Your task to perform on an android device: toggle priority inbox in the gmail app Image 0: 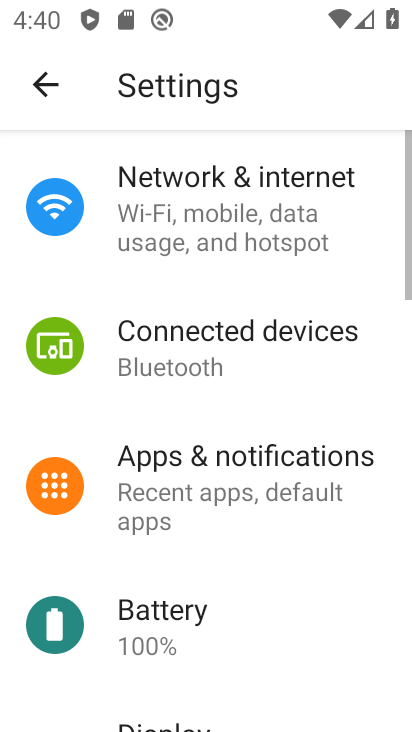
Step 0: press back button
Your task to perform on an android device: toggle priority inbox in the gmail app Image 1: 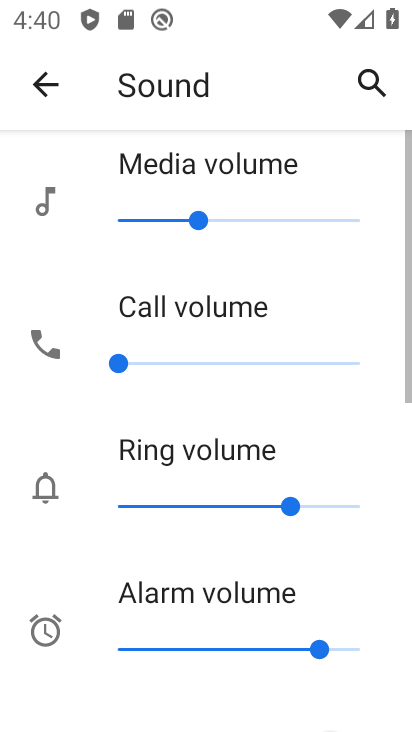
Step 1: press back button
Your task to perform on an android device: toggle priority inbox in the gmail app Image 2: 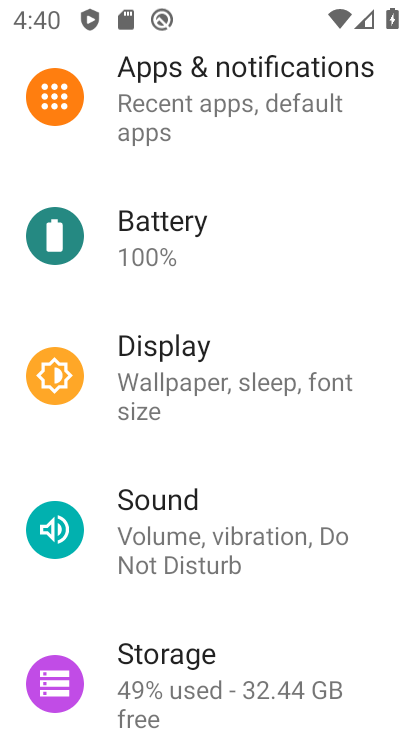
Step 2: press back button
Your task to perform on an android device: toggle priority inbox in the gmail app Image 3: 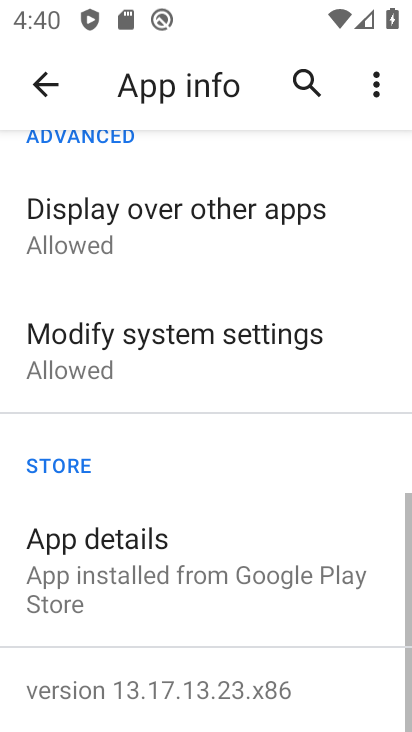
Step 3: press back button
Your task to perform on an android device: toggle priority inbox in the gmail app Image 4: 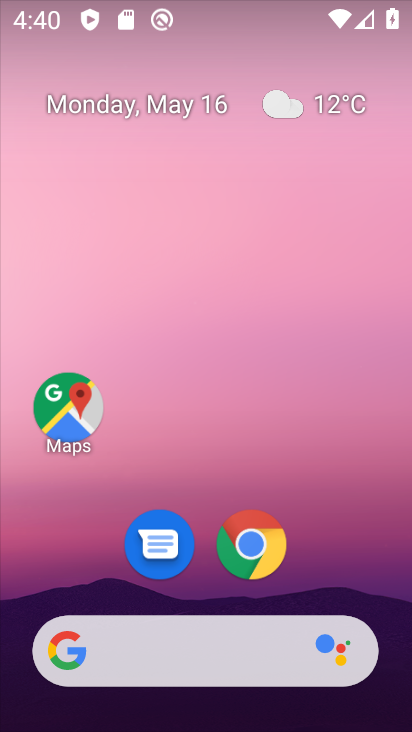
Step 4: drag from (322, 565) to (242, 1)
Your task to perform on an android device: toggle priority inbox in the gmail app Image 5: 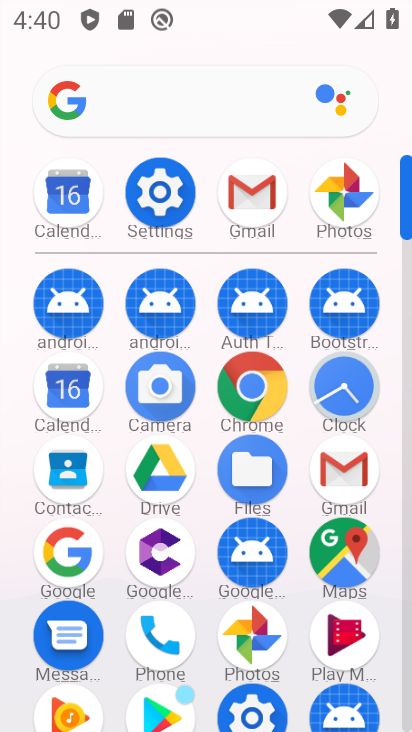
Step 5: click (250, 189)
Your task to perform on an android device: toggle priority inbox in the gmail app Image 6: 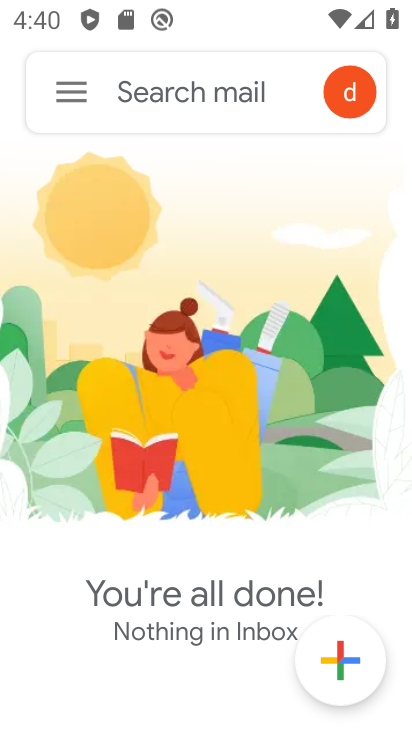
Step 6: click (68, 95)
Your task to perform on an android device: toggle priority inbox in the gmail app Image 7: 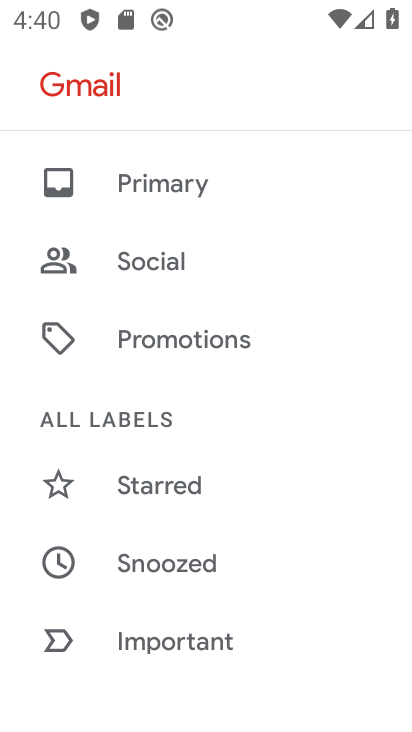
Step 7: drag from (168, 377) to (206, 305)
Your task to perform on an android device: toggle priority inbox in the gmail app Image 8: 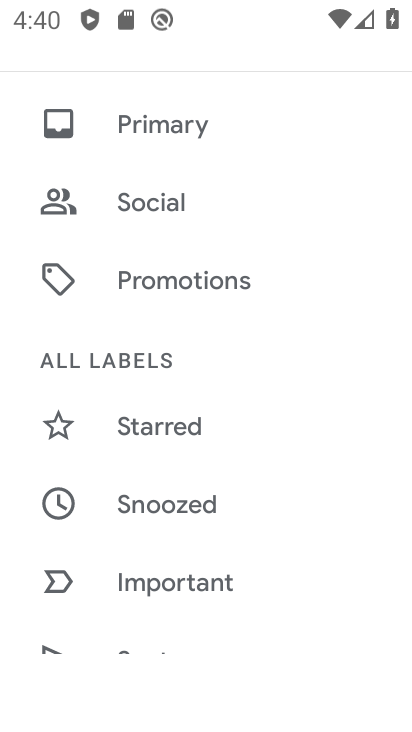
Step 8: drag from (157, 393) to (217, 313)
Your task to perform on an android device: toggle priority inbox in the gmail app Image 9: 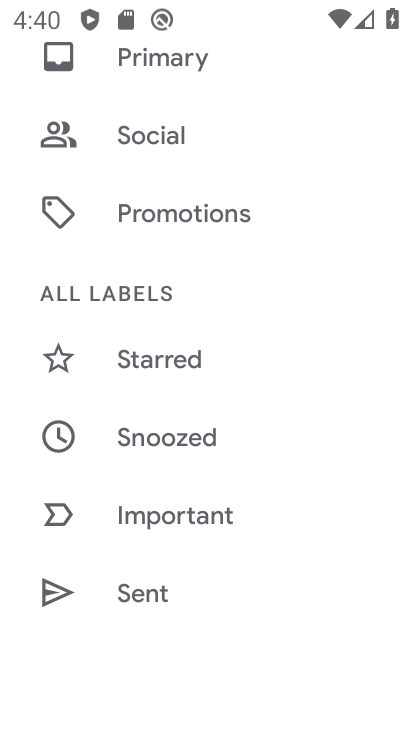
Step 9: drag from (158, 393) to (215, 324)
Your task to perform on an android device: toggle priority inbox in the gmail app Image 10: 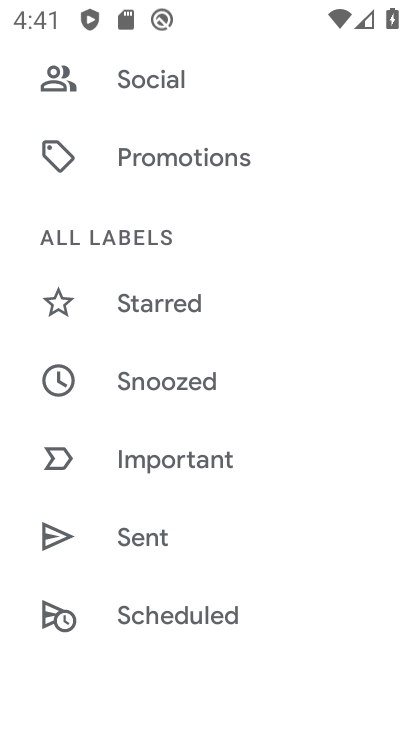
Step 10: drag from (139, 418) to (181, 338)
Your task to perform on an android device: toggle priority inbox in the gmail app Image 11: 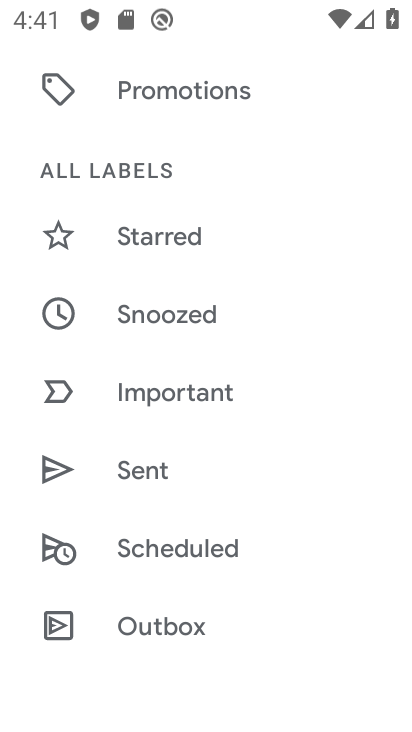
Step 11: drag from (165, 413) to (214, 350)
Your task to perform on an android device: toggle priority inbox in the gmail app Image 12: 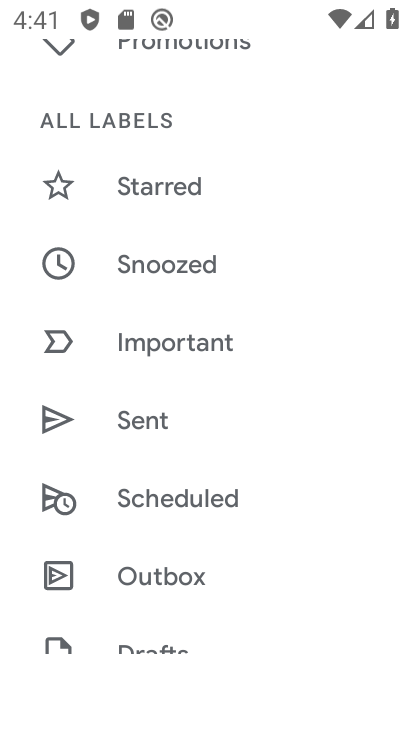
Step 12: drag from (143, 459) to (191, 380)
Your task to perform on an android device: toggle priority inbox in the gmail app Image 13: 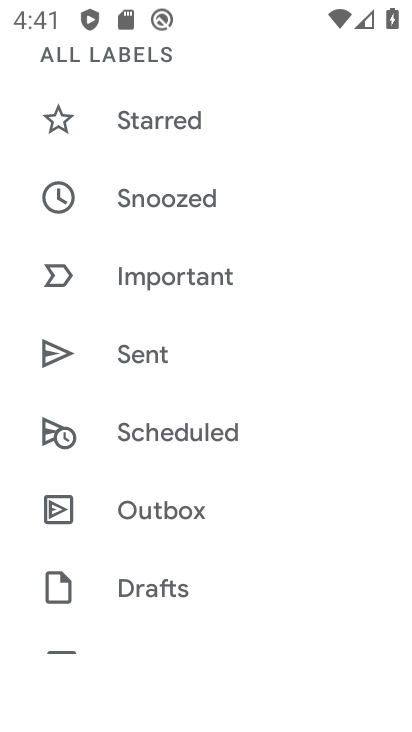
Step 13: drag from (140, 467) to (190, 389)
Your task to perform on an android device: toggle priority inbox in the gmail app Image 14: 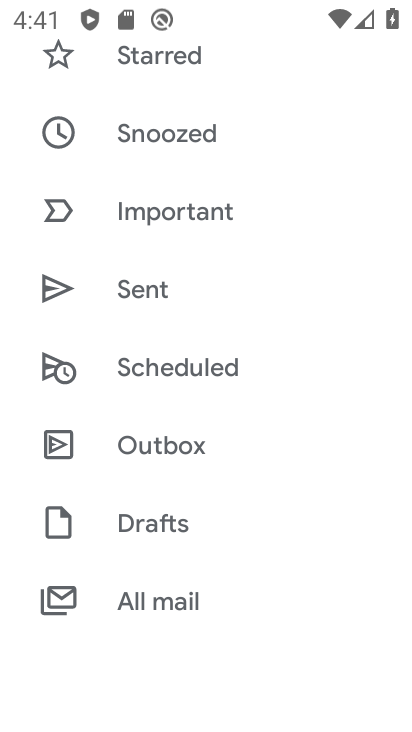
Step 14: drag from (134, 479) to (171, 392)
Your task to perform on an android device: toggle priority inbox in the gmail app Image 15: 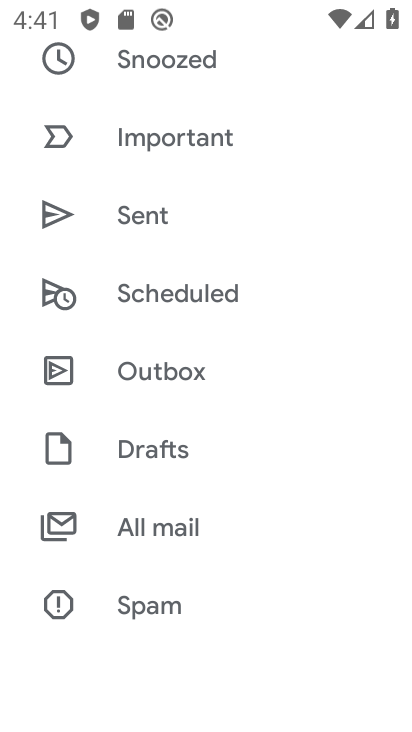
Step 15: drag from (130, 409) to (183, 337)
Your task to perform on an android device: toggle priority inbox in the gmail app Image 16: 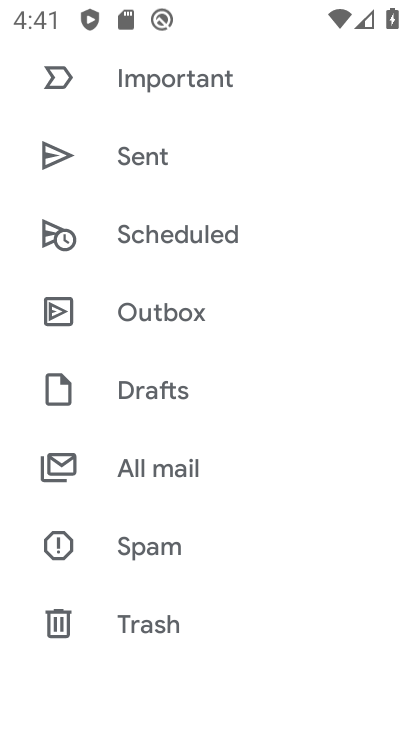
Step 16: drag from (132, 428) to (187, 291)
Your task to perform on an android device: toggle priority inbox in the gmail app Image 17: 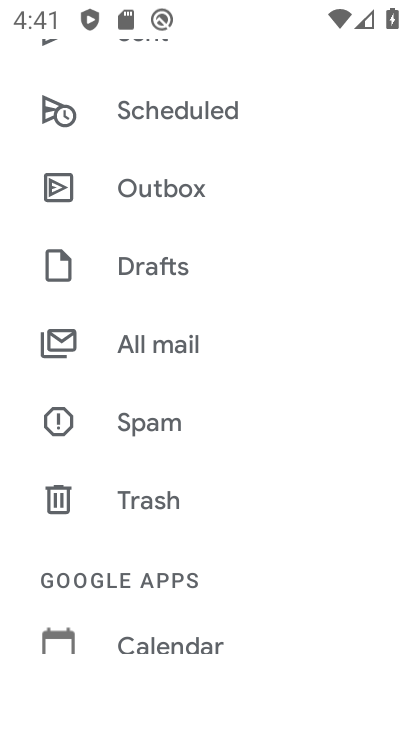
Step 17: drag from (129, 467) to (195, 364)
Your task to perform on an android device: toggle priority inbox in the gmail app Image 18: 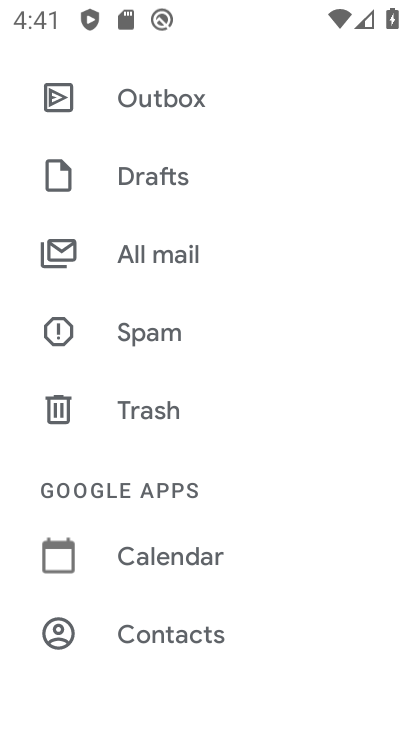
Step 18: drag from (146, 510) to (176, 401)
Your task to perform on an android device: toggle priority inbox in the gmail app Image 19: 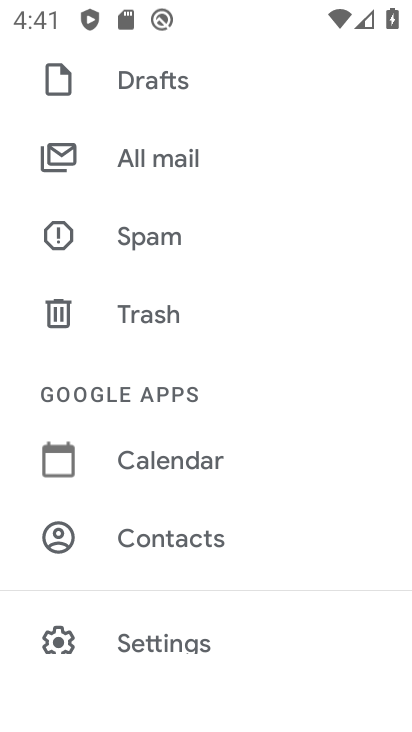
Step 19: drag from (139, 513) to (186, 390)
Your task to perform on an android device: toggle priority inbox in the gmail app Image 20: 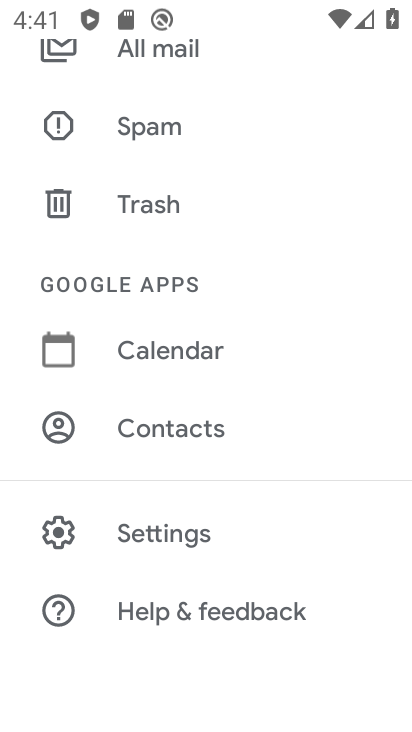
Step 20: click (154, 533)
Your task to perform on an android device: toggle priority inbox in the gmail app Image 21: 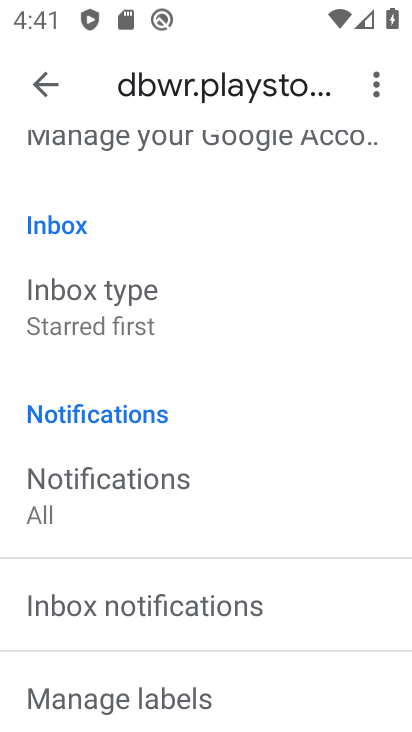
Step 21: click (119, 319)
Your task to perform on an android device: toggle priority inbox in the gmail app Image 22: 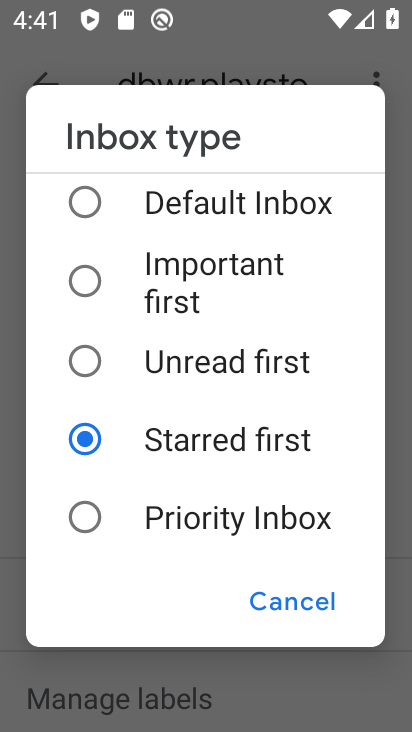
Step 22: click (85, 515)
Your task to perform on an android device: toggle priority inbox in the gmail app Image 23: 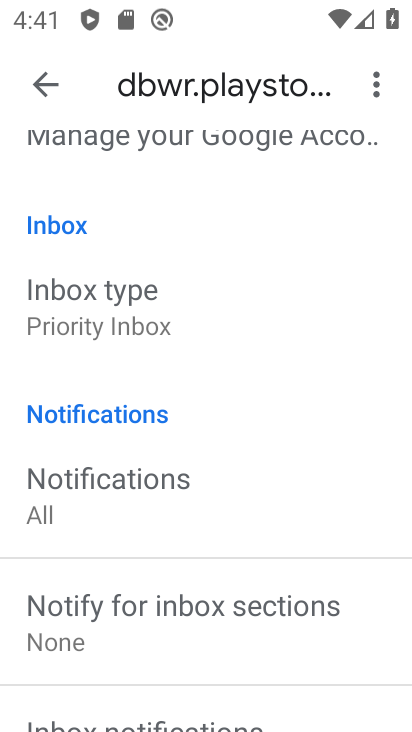
Step 23: task complete